Your task to perform on an android device: Search for vegetarian restaurants on Maps Image 0: 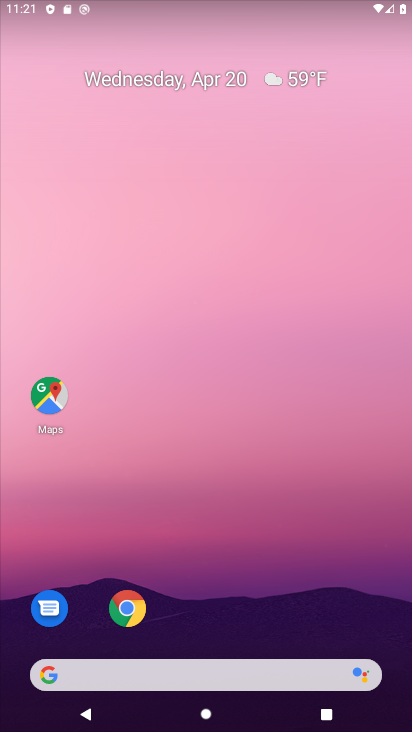
Step 0: click (55, 392)
Your task to perform on an android device: Search for vegetarian restaurants on Maps Image 1: 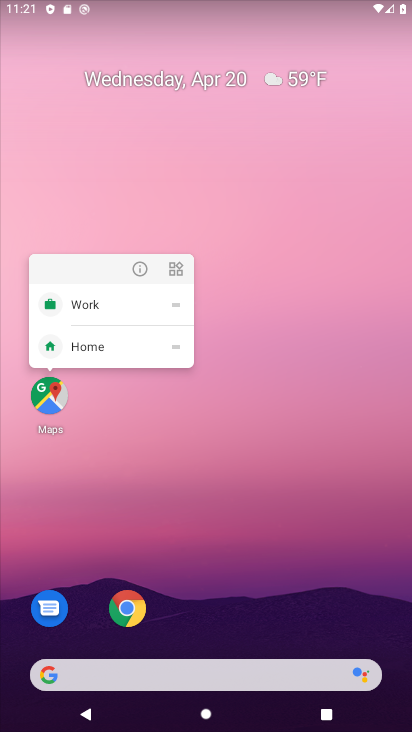
Step 1: click (216, 503)
Your task to perform on an android device: Search for vegetarian restaurants on Maps Image 2: 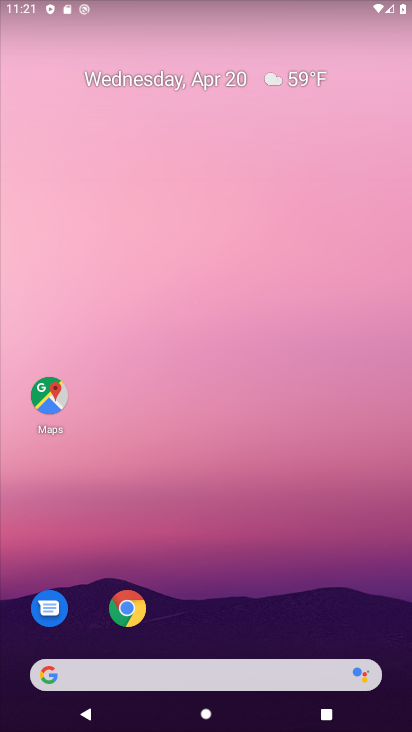
Step 2: click (48, 390)
Your task to perform on an android device: Search for vegetarian restaurants on Maps Image 3: 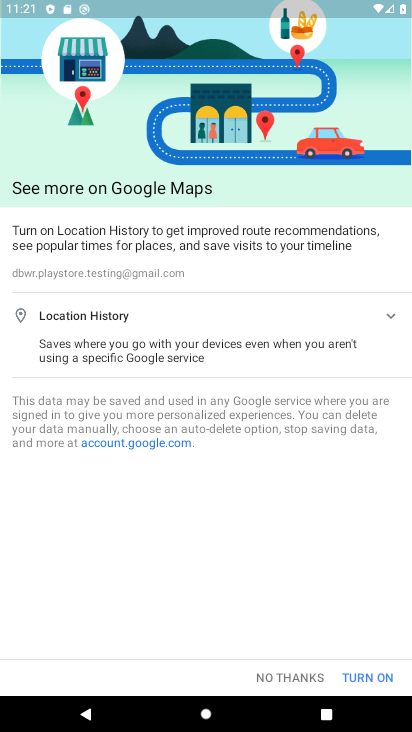
Step 3: click (286, 677)
Your task to perform on an android device: Search for vegetarian restaurants on Maps Image 4: 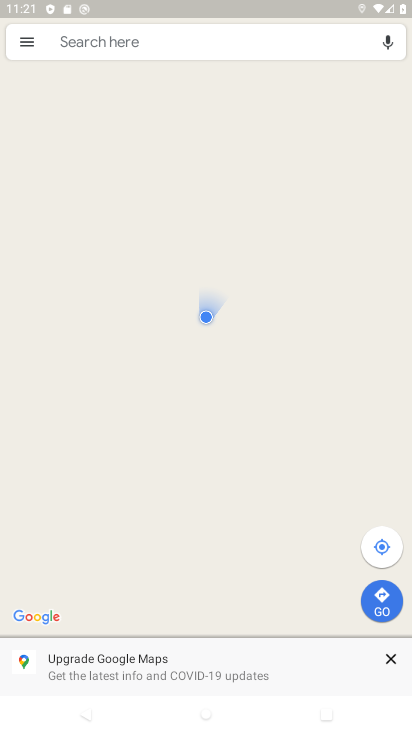
Step 4: click (251, 41)
Your task to perform on an android device: Search for vegetarian restaurants on Maps Image 5: 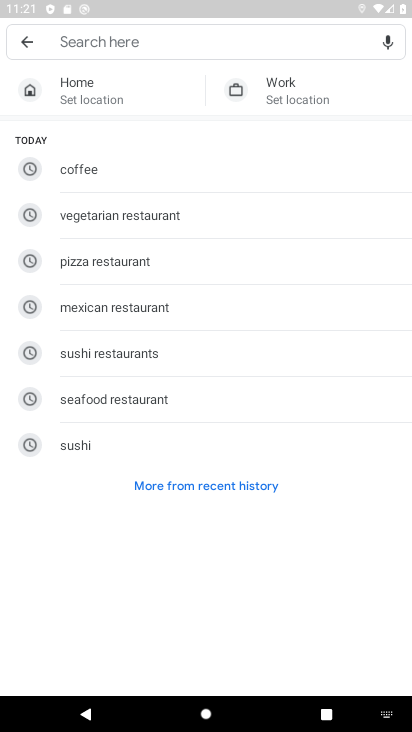
Step 5: click (139, 219)
Your task to perform on an android device: Search for vegetarian restaurants on Maps Image 6: 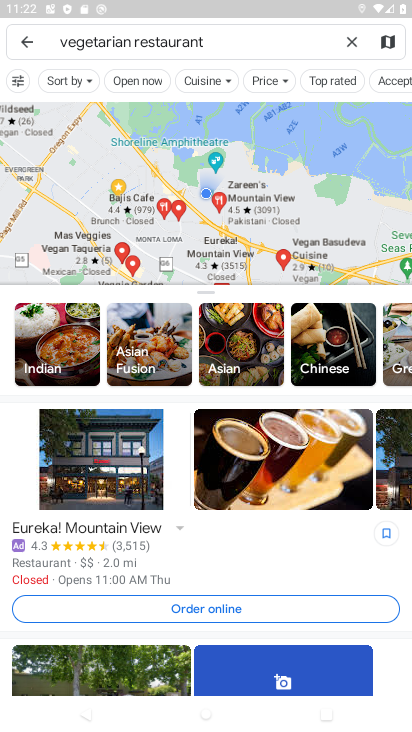
Step 6: task complete